Your task to perform on an android device: See recent photos Image 0: 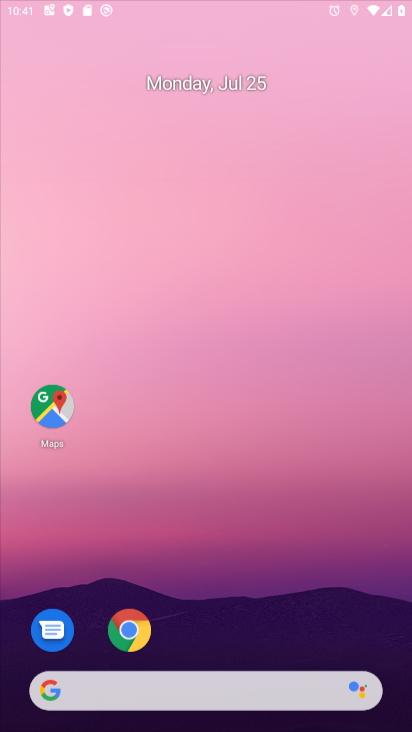
Step 0: click (246, 93)
Your task to perform on an android device: See recent photos Image 1: 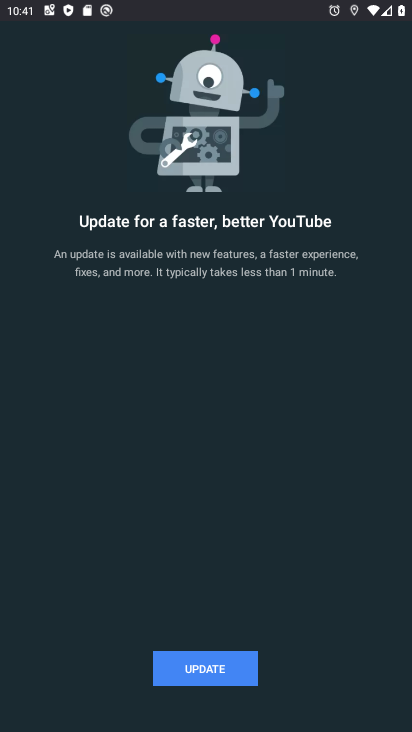
Step 1: press home button
Your task to perform on an android device: See recent photos Image 2: 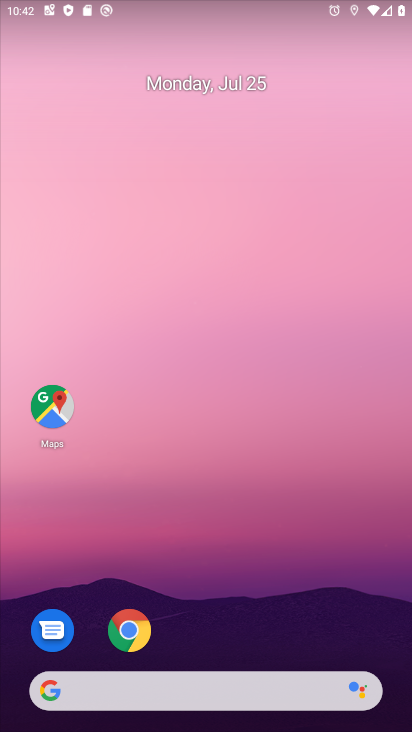
Step 2: drag from (243, 682) to (242, 22)
Your task to perform on an android device: See recent photos Image 3: 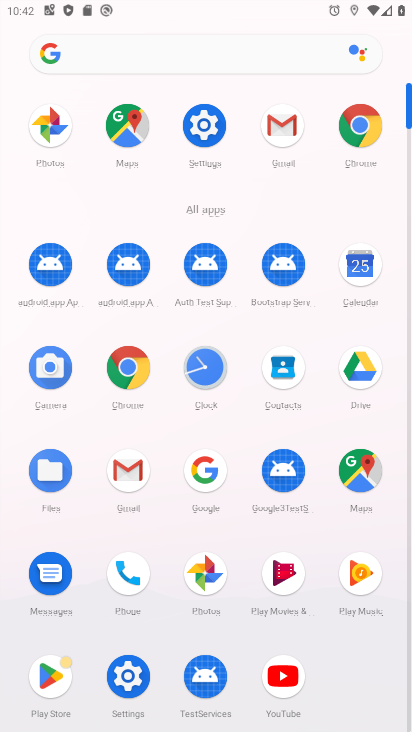
Step 3: click (212, 590)
Your task to perform on an android device: See recent photos Image 4: 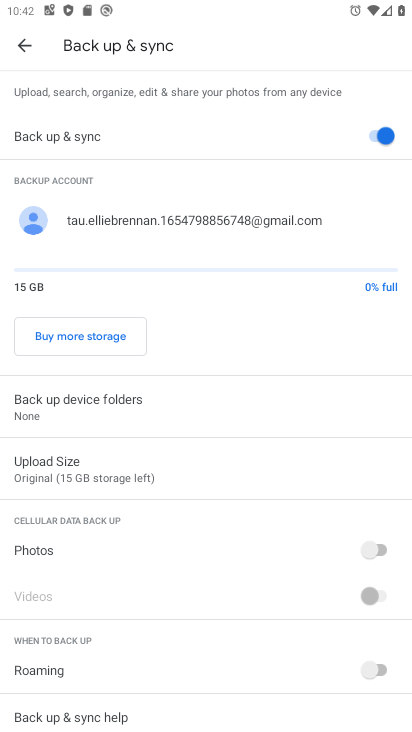
Step 4: click (20, 44)
Your task to perform on an android device: See recent photos Image 5: 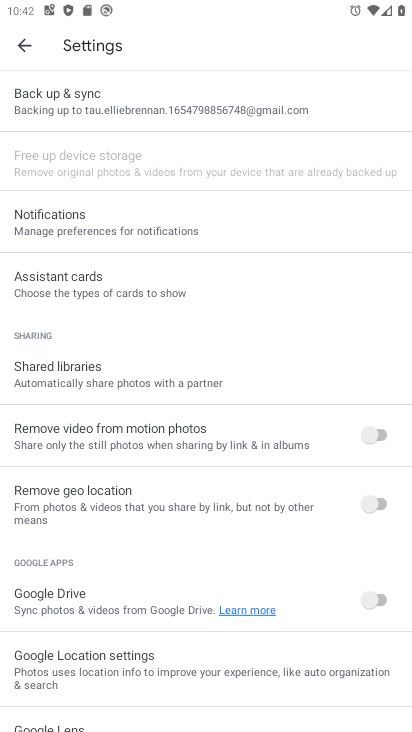
Step 5: click (26, 48)
Your task to perform on an android device: See recent photos Image 6: 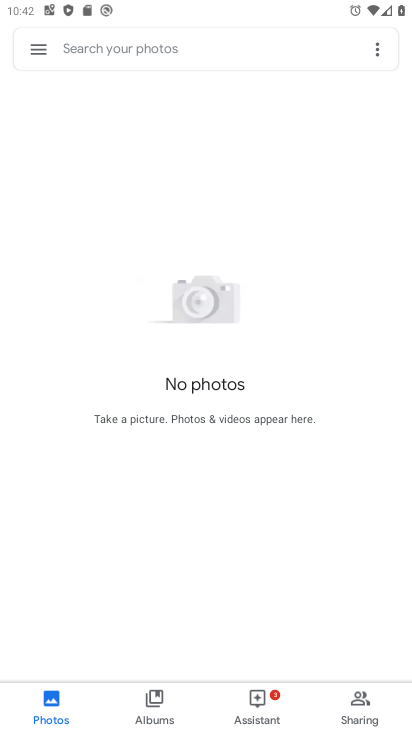
Step 6: click (54, 706)
Your task to perform on an android device: See recent photos Image 7: 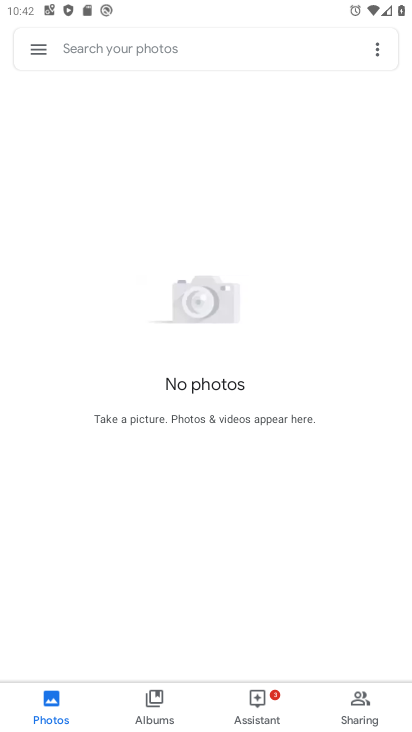
Step 7: task complete